Your task to perform on an android device: turn on priority inbox in the gmail app Image 0: 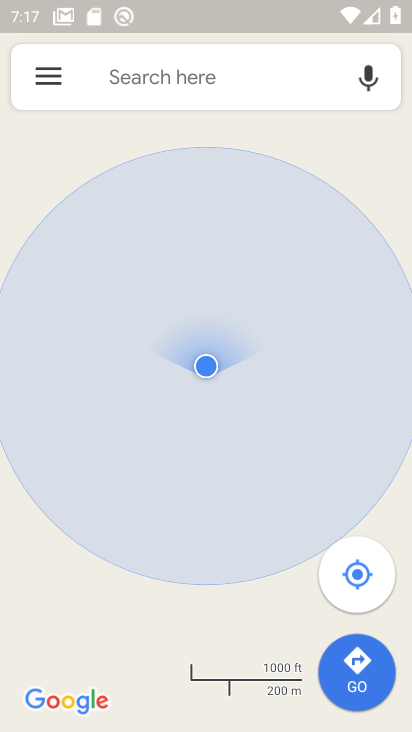
Step 0: press back button
Your task to perform on an android device: turn on priority inbox in the gmail app Image 1: 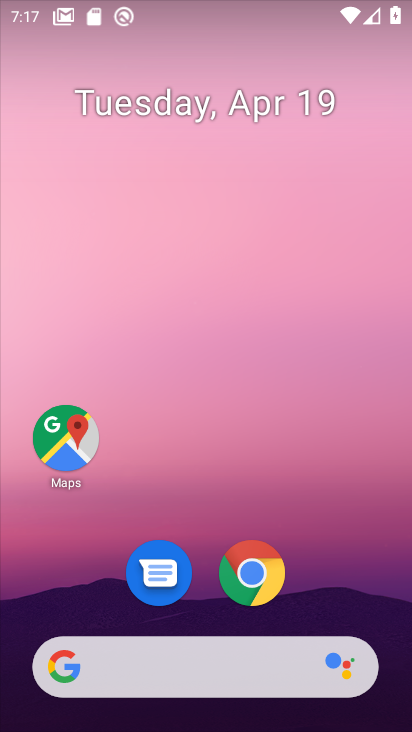
Step 1: drag from (395, 508) to (379, 147)
Your task to perform on an android device: turn on priority inbox in the gmail app Image 2: 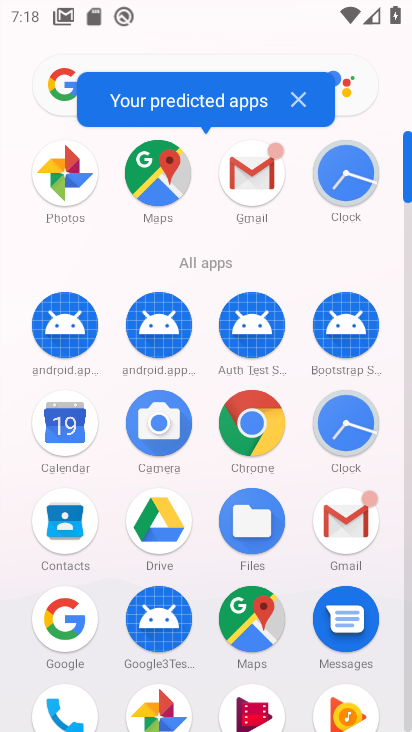
Step 2: click (346, 520)
Your task to perform on an android device: turn on priority inbox in the gmail app Image 3: 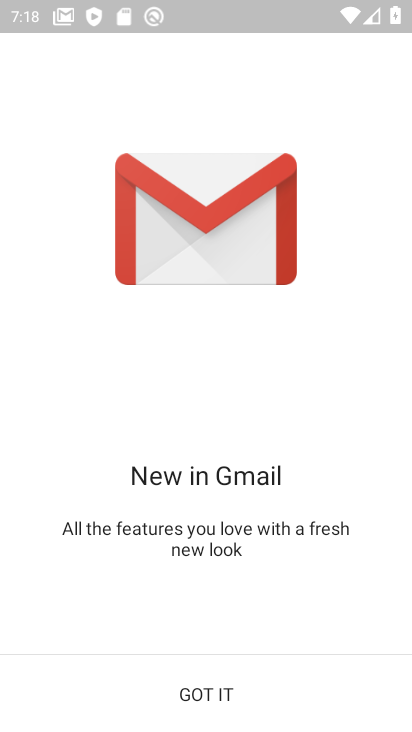
Step 3: click (175, 699)
Your task to perform on an android device: turn on priority inbox in the gmail app Image 4: 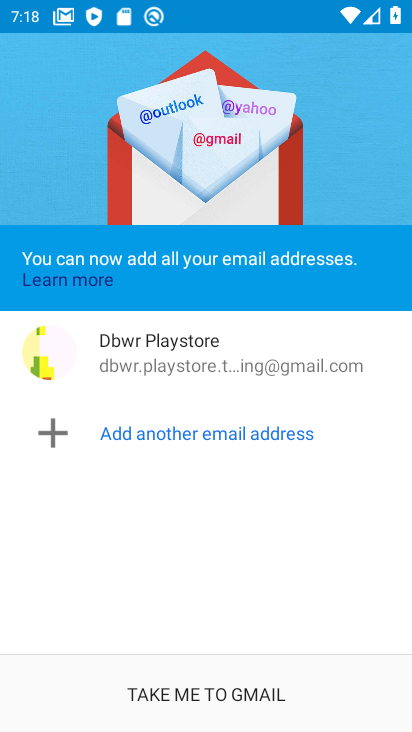
Step 4: click (222, 683)
Your task to perform on an android device: turn on priority inbox in the gmail app Image 5: 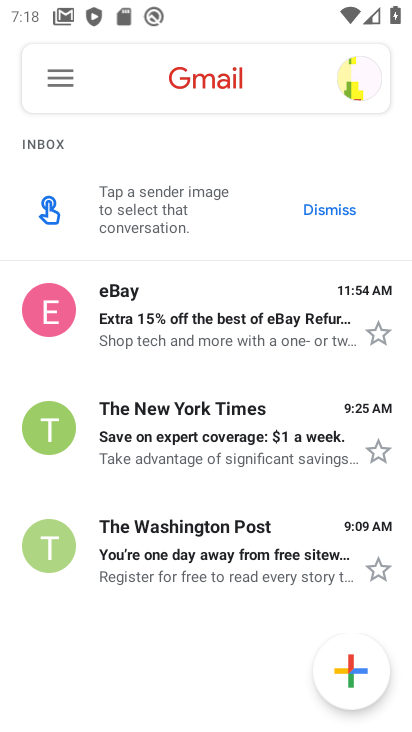
Step 5: click (53, 74)
Your task to perform on an android device: turn on priority inbox in the gmail app Image 6: 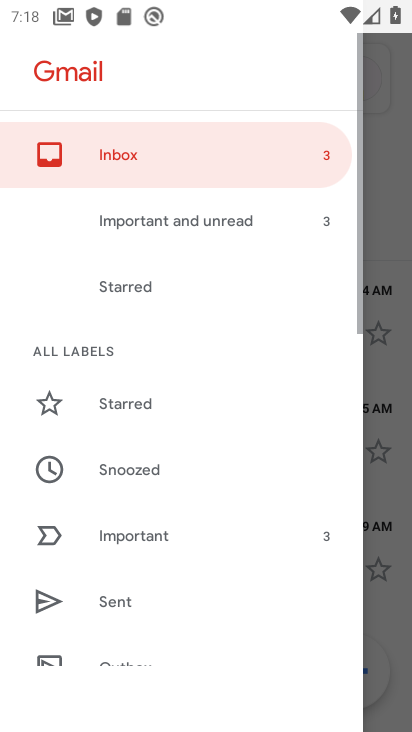
Step 6: drag from (148, 542) to (370, 124)
Your task to perform on an android device: turn on priority inbox in the gmail app Image 7: 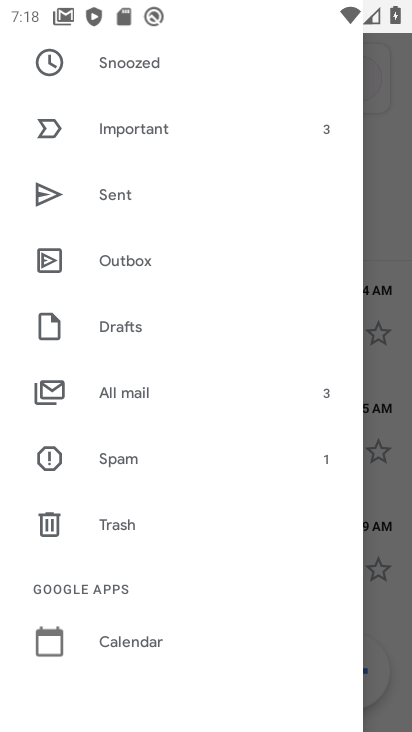
Step 7: drag from (161, 588) to (279, 212)
Your task to perform on an android device: turn on priority inbox in the gmail app Image 8: 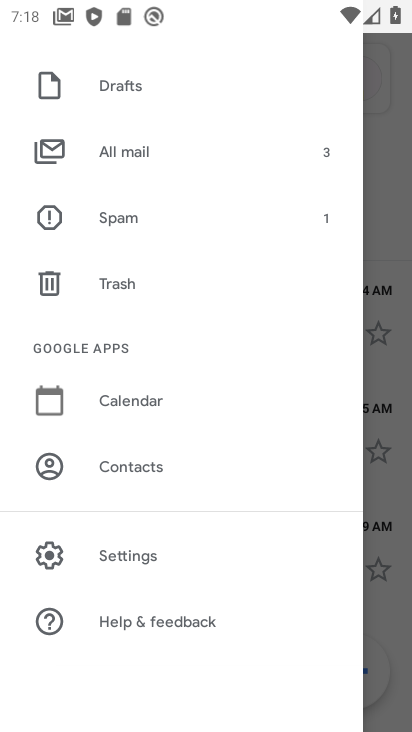
Step 8: click (111, 546)
Your task to perform on an android device: turn on priority inbox in the gmail app Image 9: 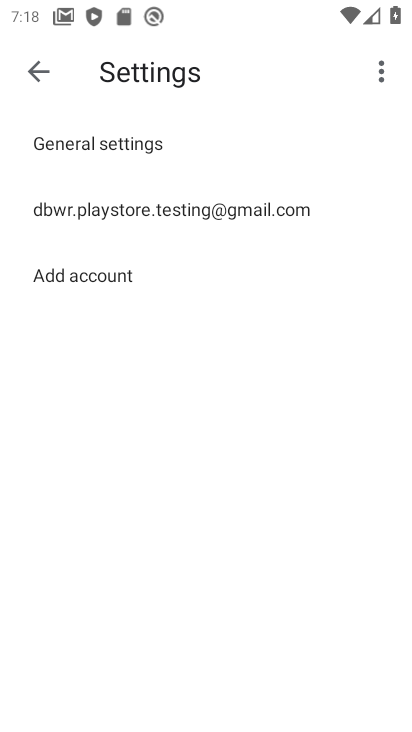
Step 9: click (151, 218)
Your task to perform on an android device: turn on priority inbox in the gmail app Image 10: 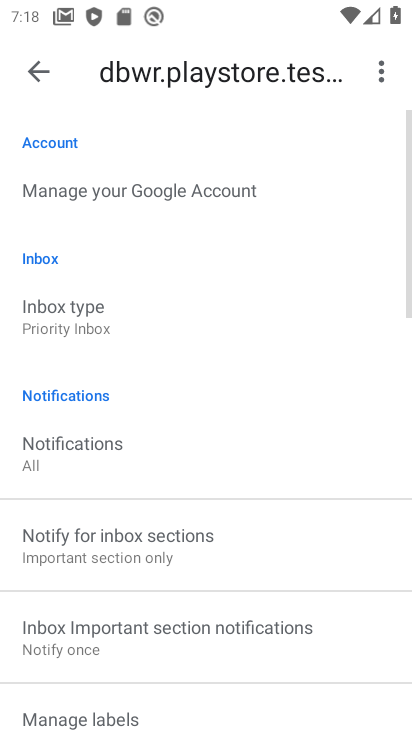
Step 10: click (116, 328)
Your task to perform on an android device: turn on priority inbox in the gmail app Image 11: 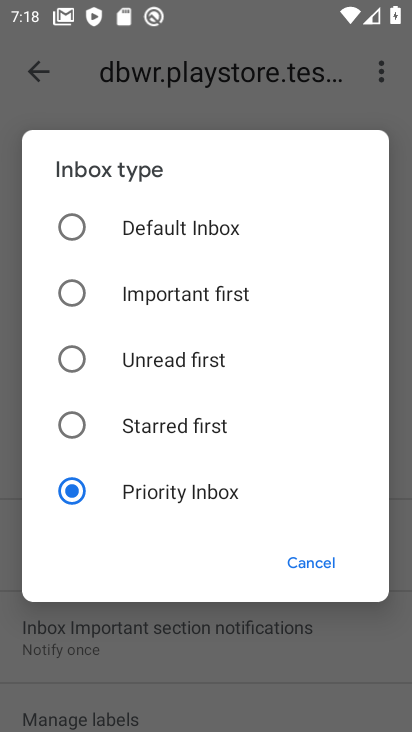
Step 11: task complete